Your task to perform on an android device: Clear all items from cart on walmart.com. Search for usb-b on walmart.com, select the first entry, and add it to the cart. Image 0: 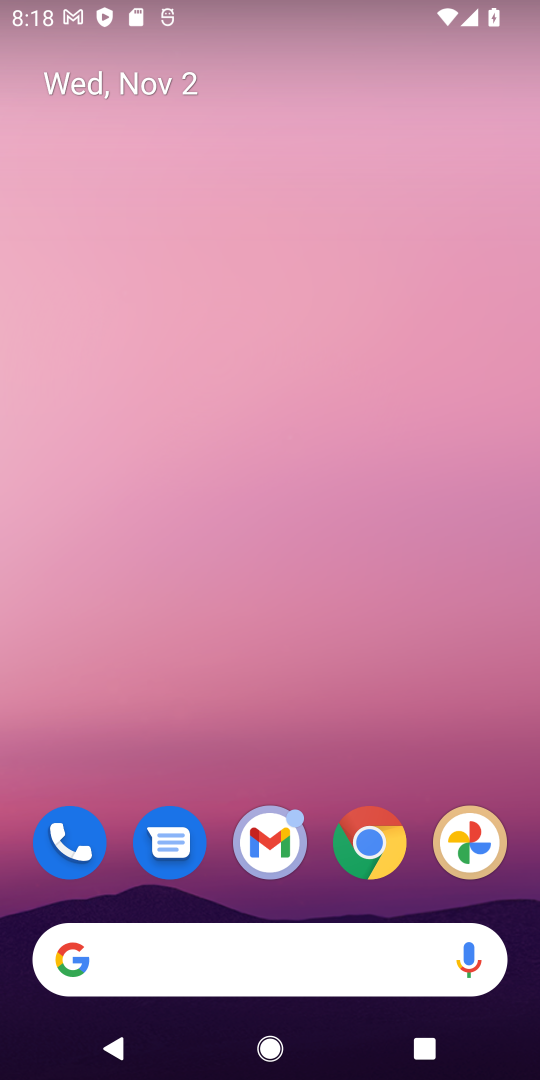
Step 0: drag from (333, 905) to (106, 0)
Your task to perform on an android device: Clear all items from cart on walmart.com. Search for usb-b on walmart.com, select the first entry, and add it to the cart. Image 1: 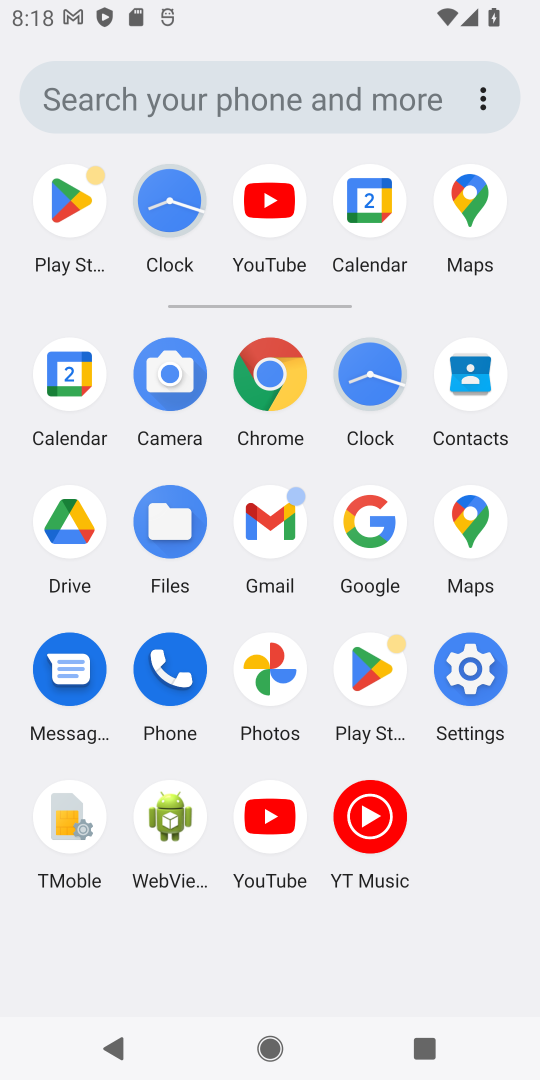
Step 1: click (375, 511)
Your task to perform on an android device: Clear all items from cart on walmart.com. Search for usb-b on walmart.com, select the first entry, and add it to the cart. Image 2: 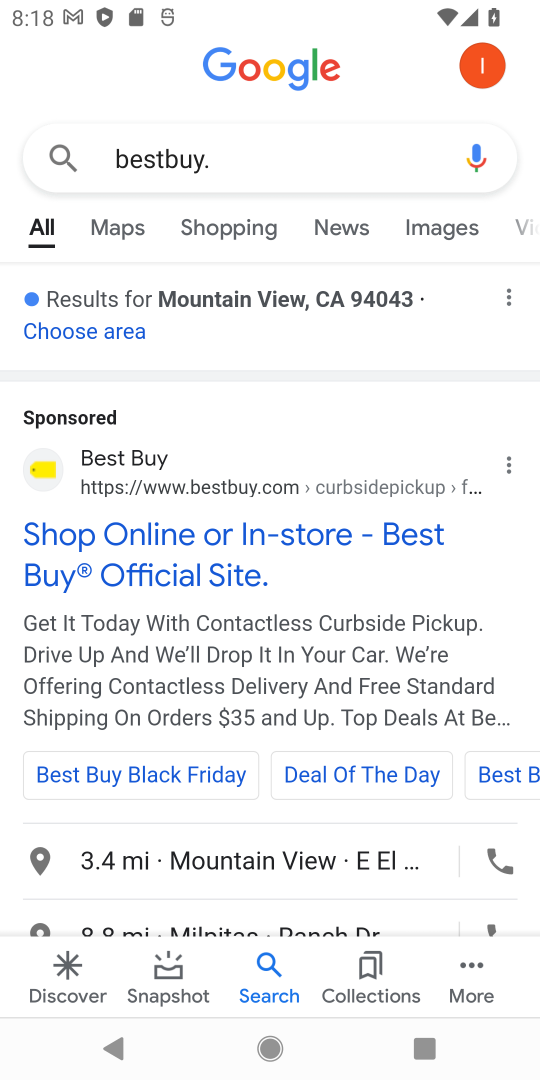
Step 2: click (207, 163)
Your task to perform on an android device: Clear all items from cart on walmart.com. Search for usb-b on walmart.com, select the first entry, and add it to the cart. Image 3: 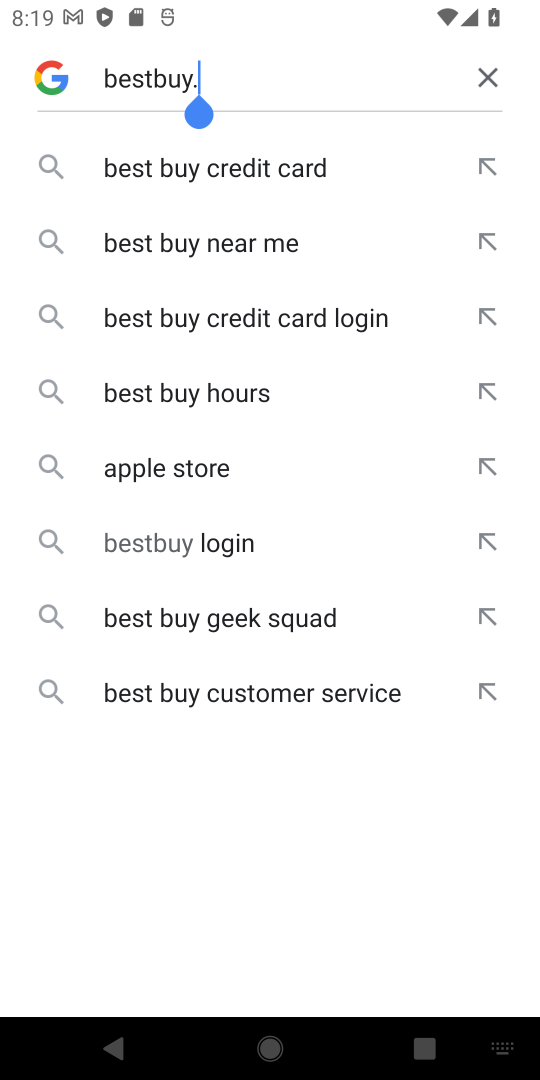
Step 3: click (478, 78)
Your task to perform on an android device: Clear all items from cart on walmart.com. Search for usb-b on walmart.com, select the first entry, and add it to the cart. Image 4: 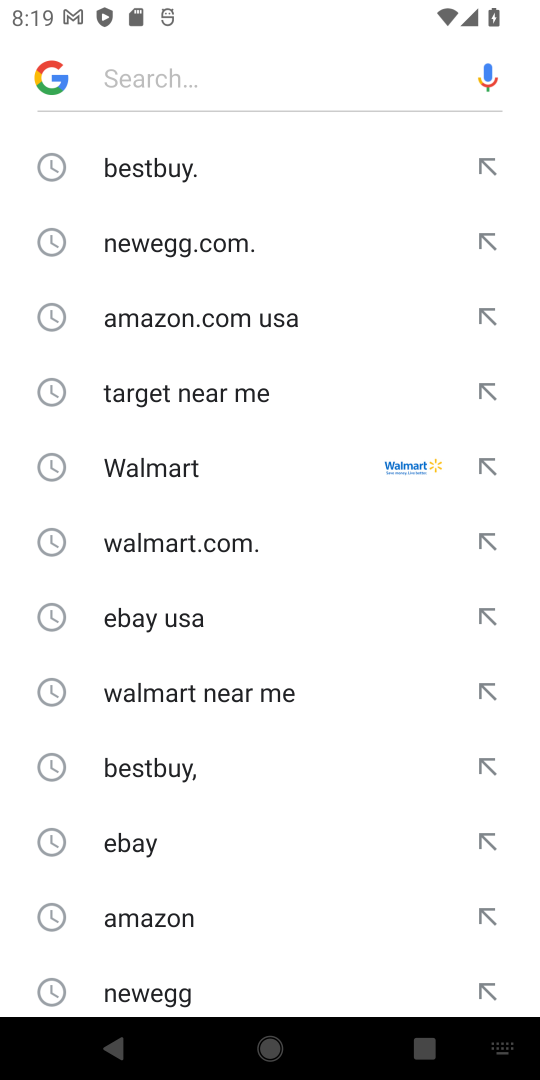
Step 4: click (275, 80)
Your task to perform on an android device: Clear all items from cart on walmart.com. Search for usb-b on walmart.com, select the first entry, and add it to the cart. Image 5: 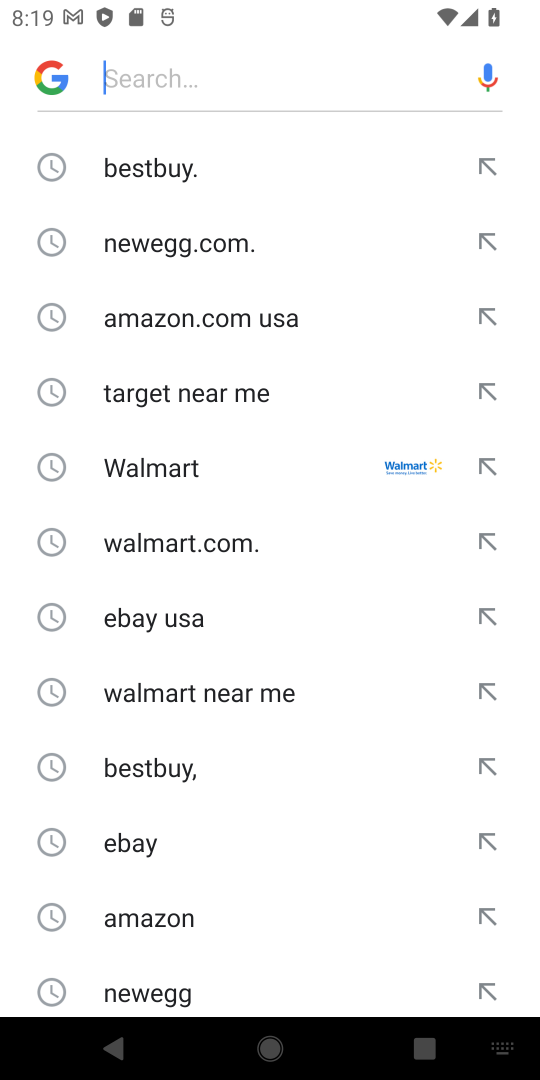
Step 5: type "walmart "
Your task to perform on an android device: Clear all items from cart on walmart.com. Search for usb-b on walmart.com, select the first entry, and add it to the cart. Image 6: 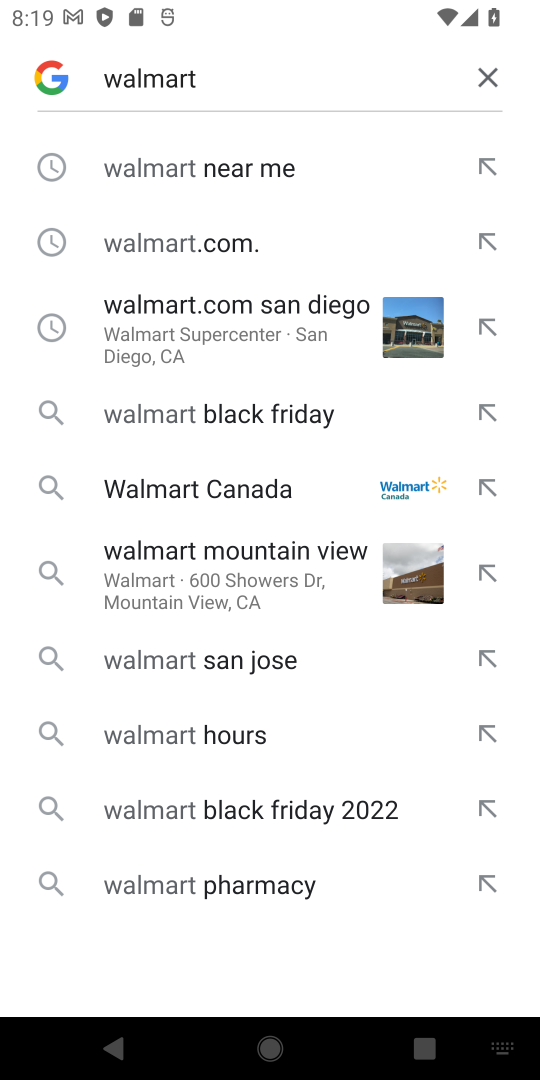
Step 6: click (198, 169)
Your task to perform on an android device: Clear all items from cart on walmart.com. Search for usb-b on walmart.com, select the first entry, and add it to the cart. Image 7: 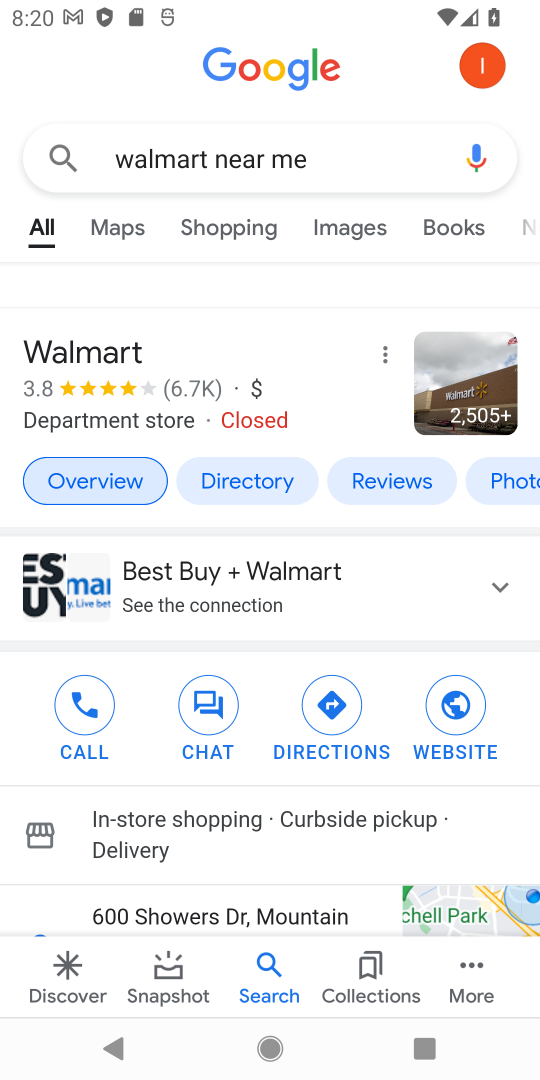
Step 7: drag from (225, 881) to (280, 157)
Your task to perform on an android device: Clear all items from cart on walmart.com. Search for usb-b on walmart.com, select the first entry, and add it to the cart. Image 8: 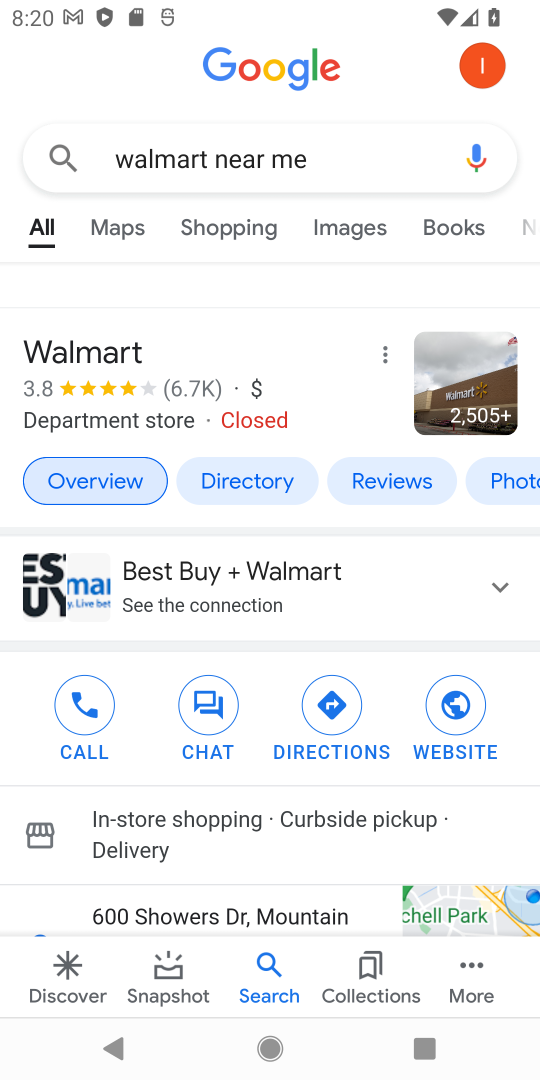
Step 8: drag from (293, 586) to (310, 285)
Your task to perform on an android device: Clear all items from cart on walmart.com. Search for usb-b on walmart.com, select the first entry, and add it to the cart. Image 9: 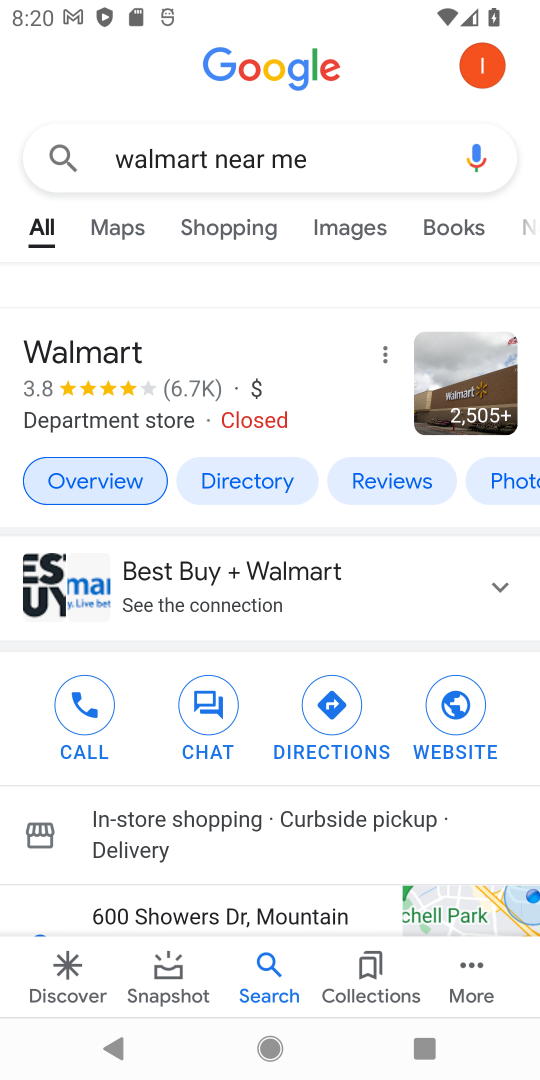
Step 9: drag from (312, 744) to (360, 245)
Your task to perform on an android device: Clear all items from cart on walmart.com. Search for usb-b on walmart.com, select the first entry, and add it to the cart. Image 10: 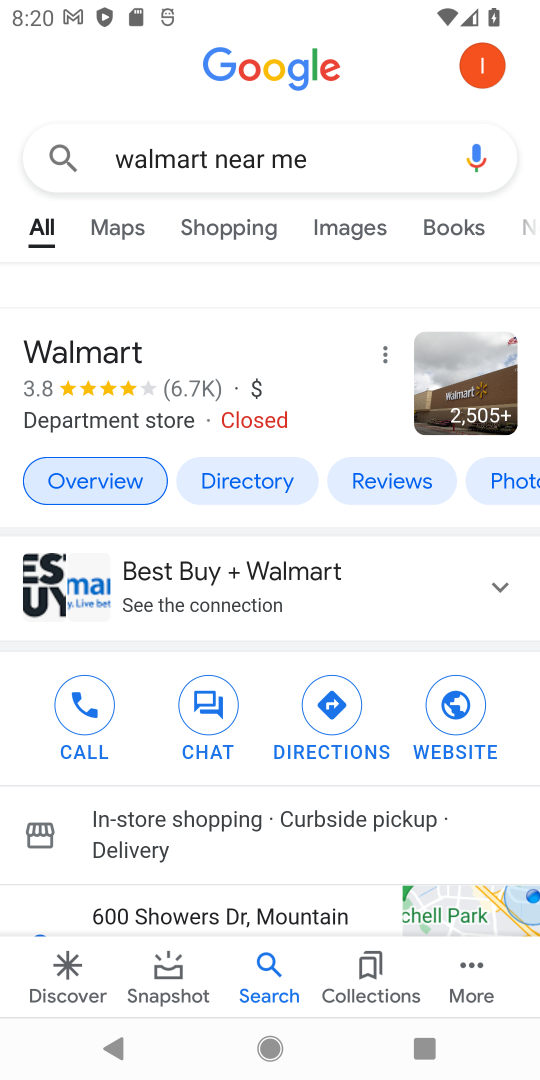
Step 10: drag from (282, 825) to (320, 273)
Your task to perform on an android device: Clear all items from cart on walmart.com. Search for usb-b on walmart.com, select the first entry, and add it to the cart. Image 11: 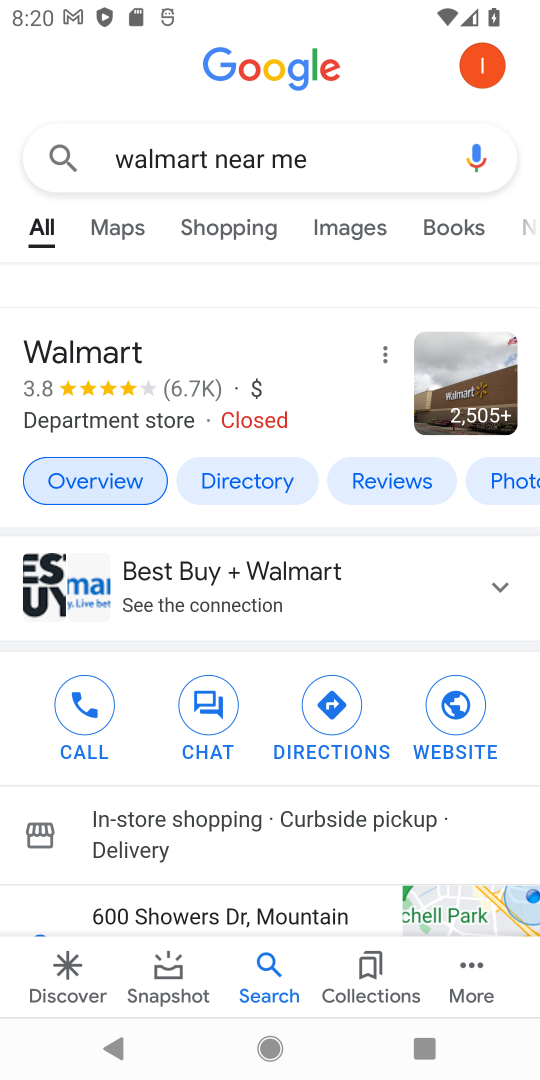
Step 11: drag from (356, 804) to (388, 537)
Your task to perform on an android device: Clear all items from cart on walmart.com. Search for usb-b on walmart.com, select the first entry, and add it to the cart. Image 12: 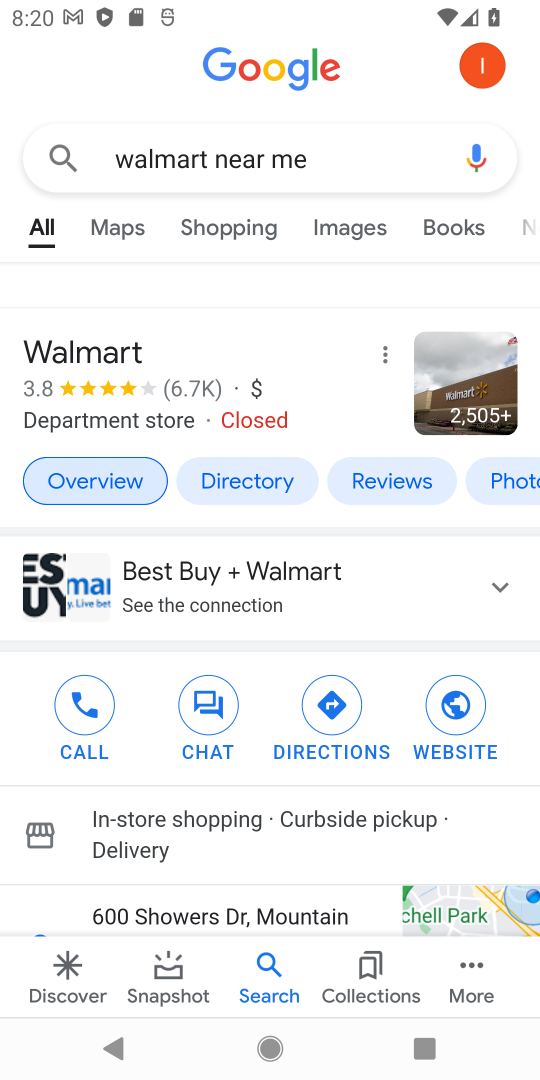
Step 12: drag from (453, 839) to (437, 202)
Your task to perform on an android device: Clear all items from cart on walmart.com. Search for usb-b on walmart.com, select the first entry, and add it to the cart. Image 13: 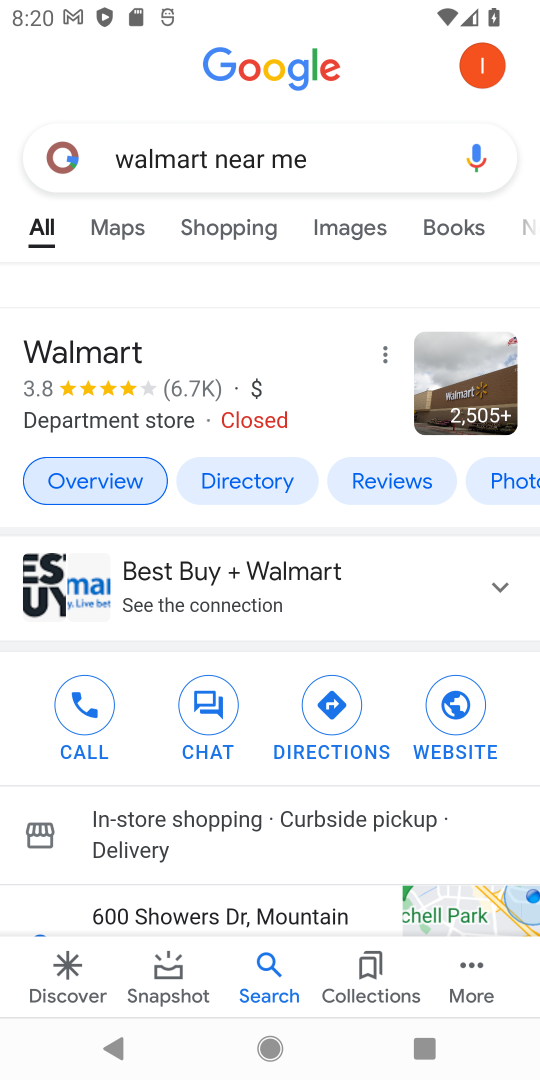
Step 13: drag from (374, 709) to (529, 190)
Your task to perform on an android device: Clear all items from cart on walmart.com. Search for usb-b on walmart.com, select the first entry, and add it to the cart. Image 14: 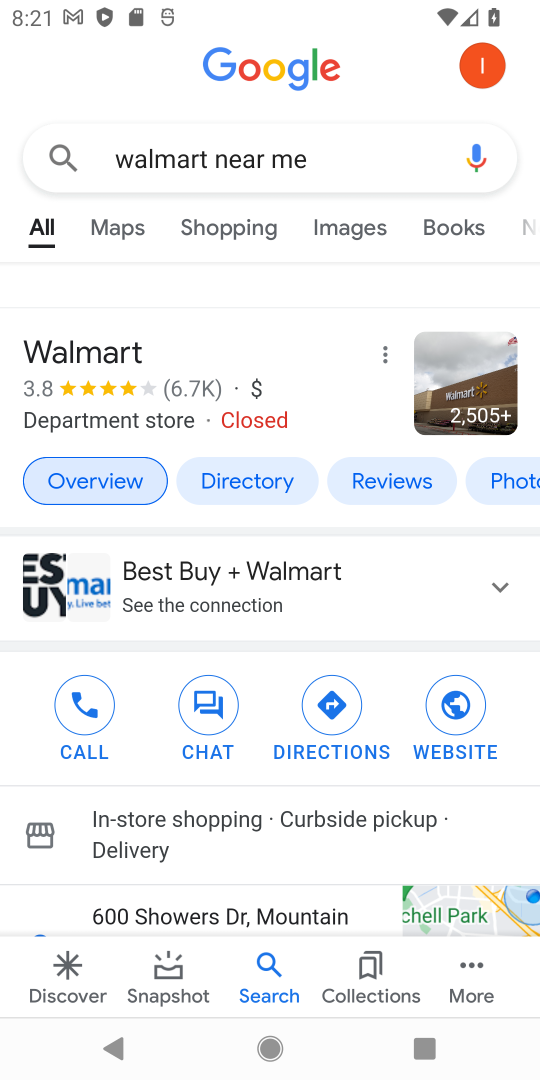
Step 14: drag from (204, 773) to (251, 200)
Your task to perform on an android device: Clear all items from cart on walmart.com. Search for usb-b on walmart.com, select the first entry, and add it to the cart. Image 15: 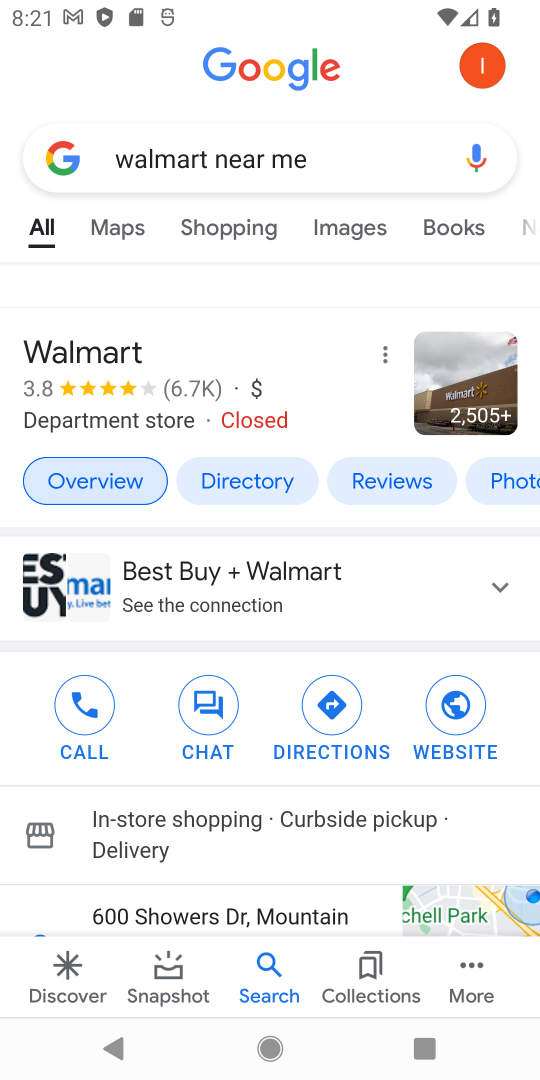
Step 15: drag from (180, 751) to (201, 428)
Your task to perform on an android device: Clear all items from cart on walmart.com. Search for usb-b on walmart.com, select the first entry, and add it to the cart. Image 16: 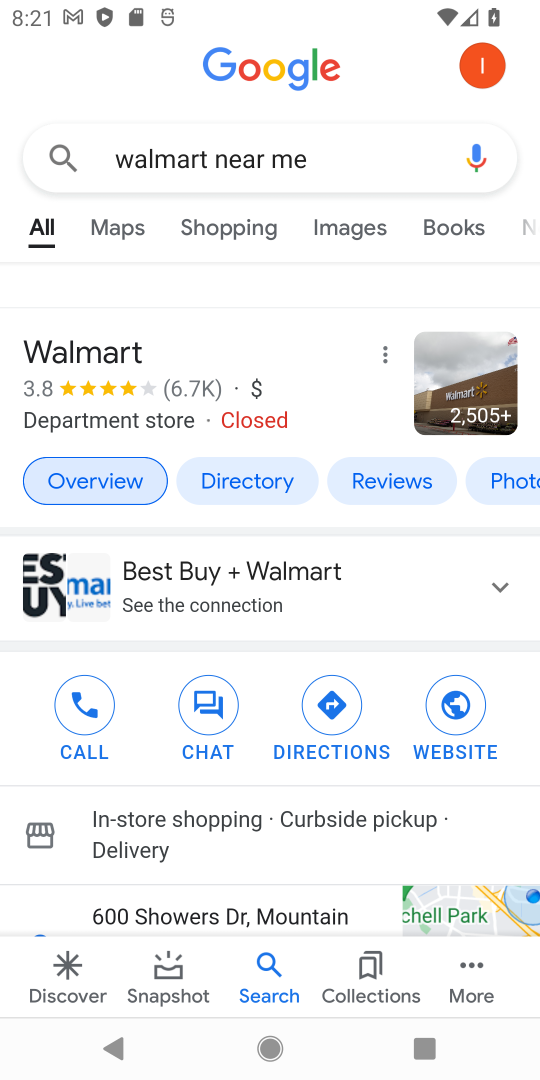
Step 16: drag from (124, 785) to (183, 450)
Your task to perform on an android device: Clear all items from cart on walmart.com. Search for usb-b on walmart.com, select the first entry, and add it to the cart. Image 17: 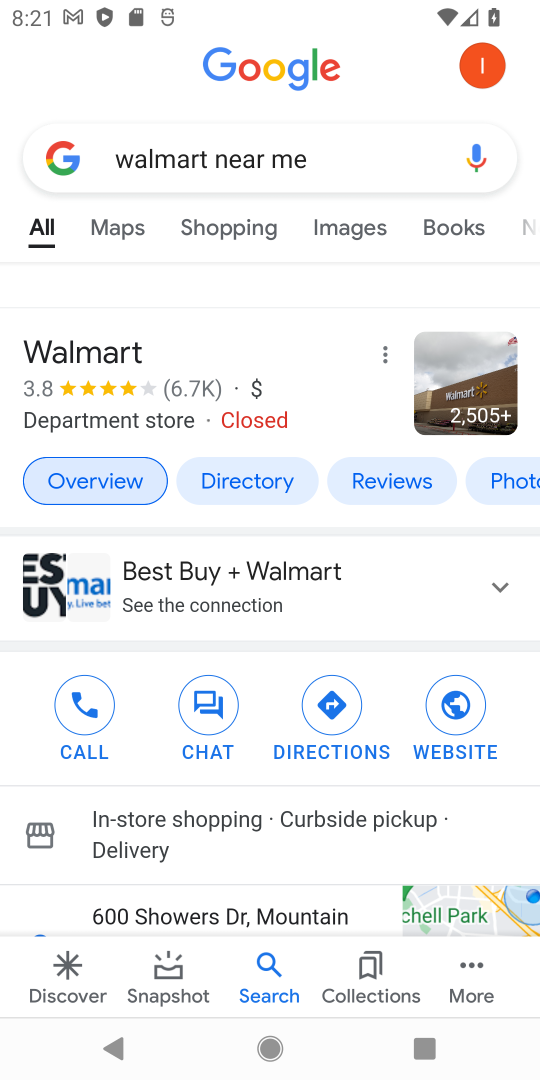
Step 17: drag from (241, 309) to (325, 314)
Your task to perform on an android device: Clear all items from cart on walmart.com. Search for usb-b on walmart.com, select the first entry, and add it to the cart. Image 18: 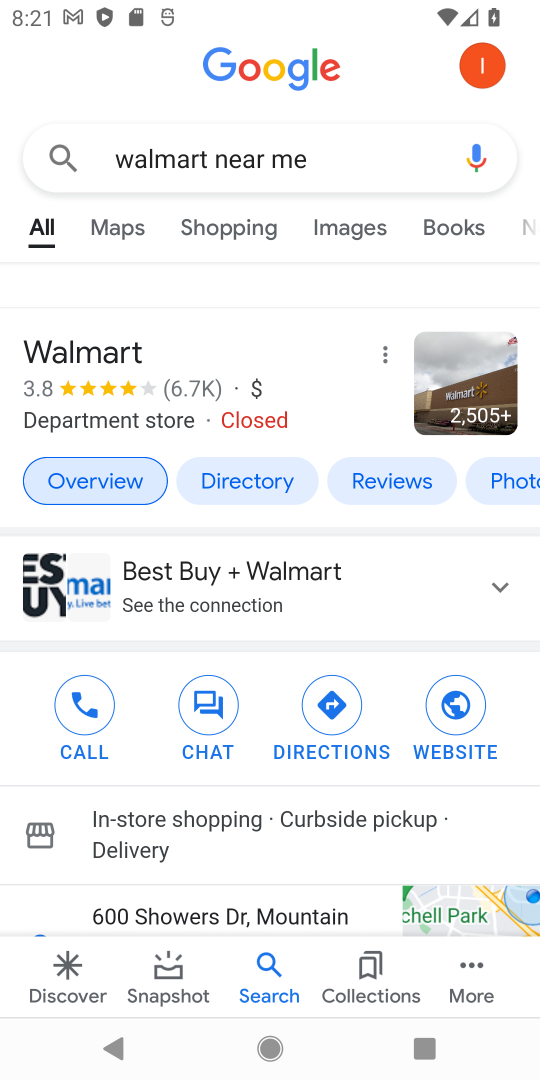
Step 18: click (326, 150)
Your task to perform on an android device: Clear all items from cart on walmart.com. Search for usb-b on walmart.com, select the first entry, and add it to the cart. Image 19: 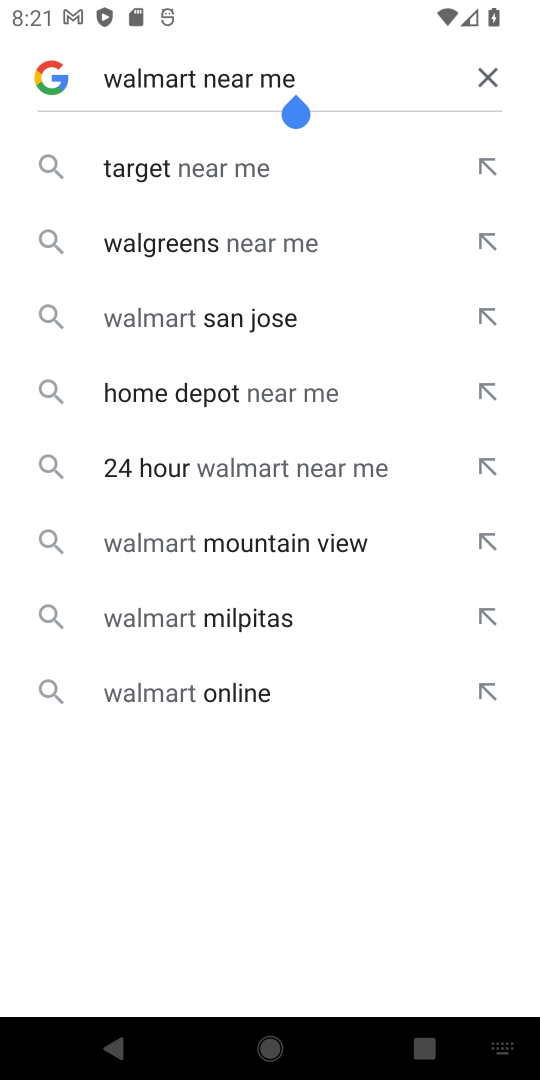
Step 19: click (484, 69)
Your task to perform on an android device: Clear all items from cart on walmart.com. Search for usb-b on walmart.com, select the first entry, and add it to the cart. Image 20: 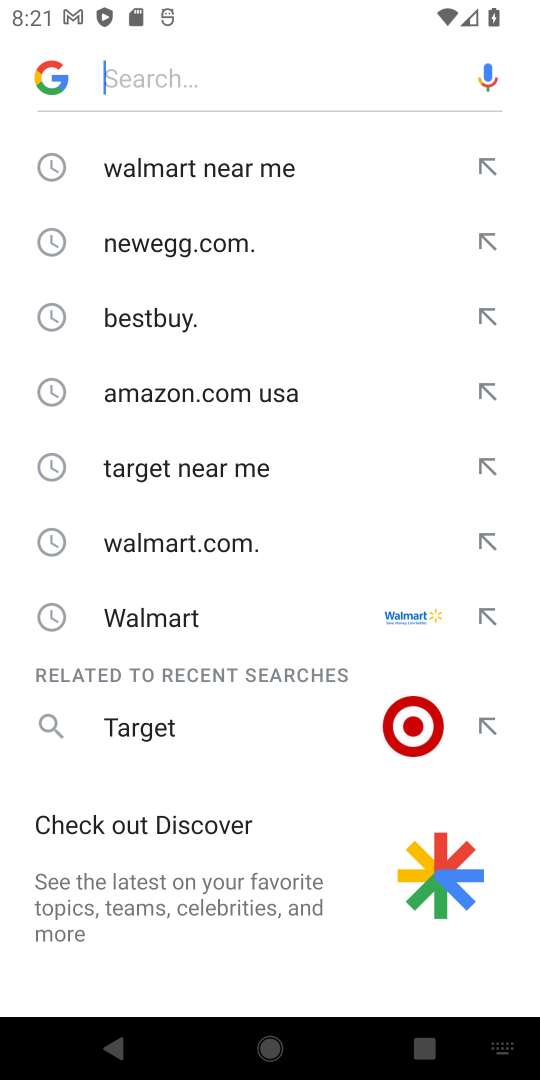
Step 20: click (157, 617)
Your task to perform on an android device: Clear all items from cart on walmart.com. Search for usb-b on walmart.com, select the first entry, and add it to the cart. Image 21: 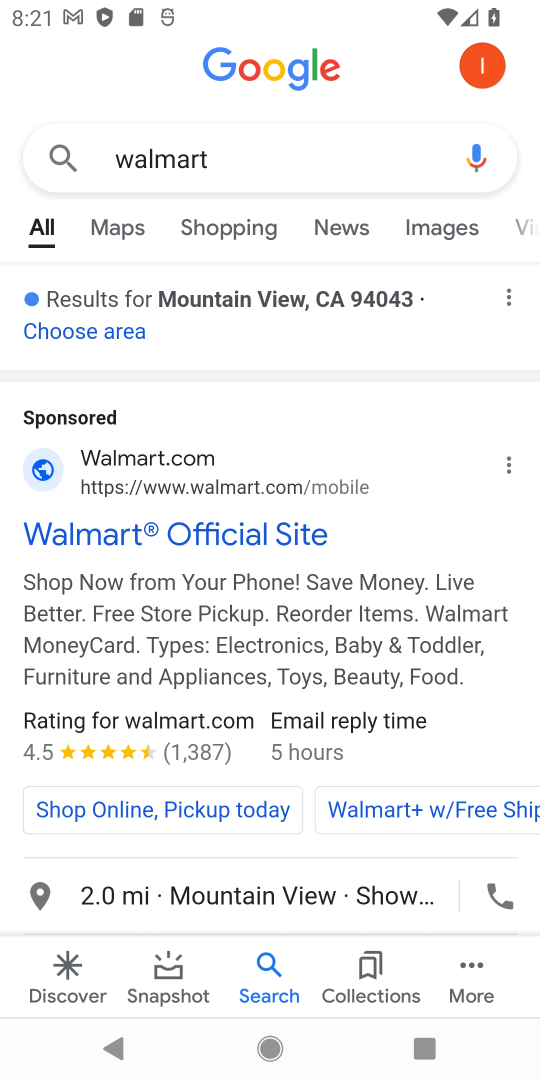
Step 21: drag from (223, 801) to (273, 331)
Your task to perform on an android device: Clear all items from cart on walmart.com. Search for usb-b on walmart.com, select the first entry, and add it to the cart. Image 22: 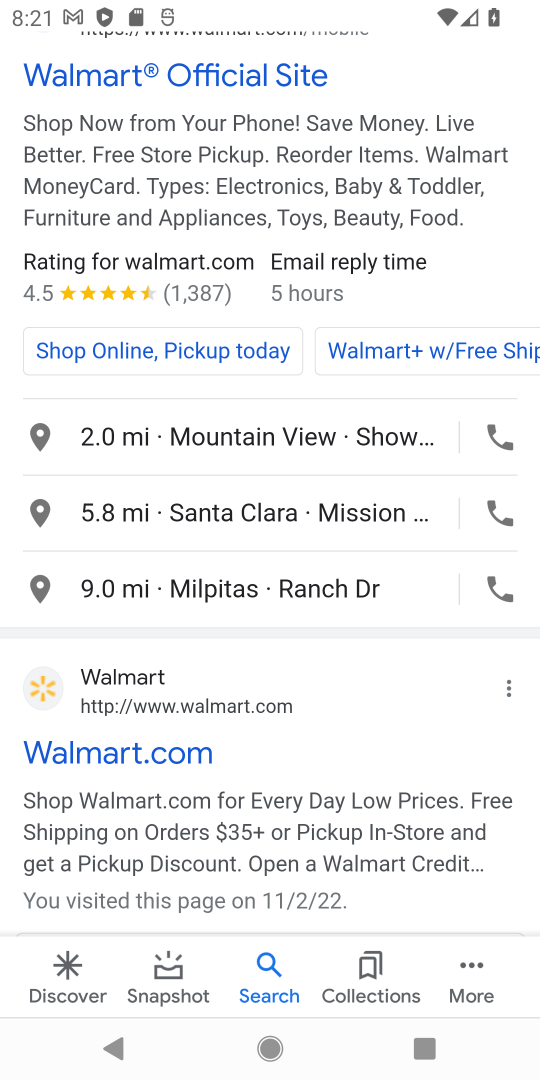
Step 22: drag from (396, 793) to (396, 467)
Your task to perform on an android device: Clear all items from cart on walmart.com. Search for usb-b on walmart.com, select the first entry, and add it to the cart. Image 23: 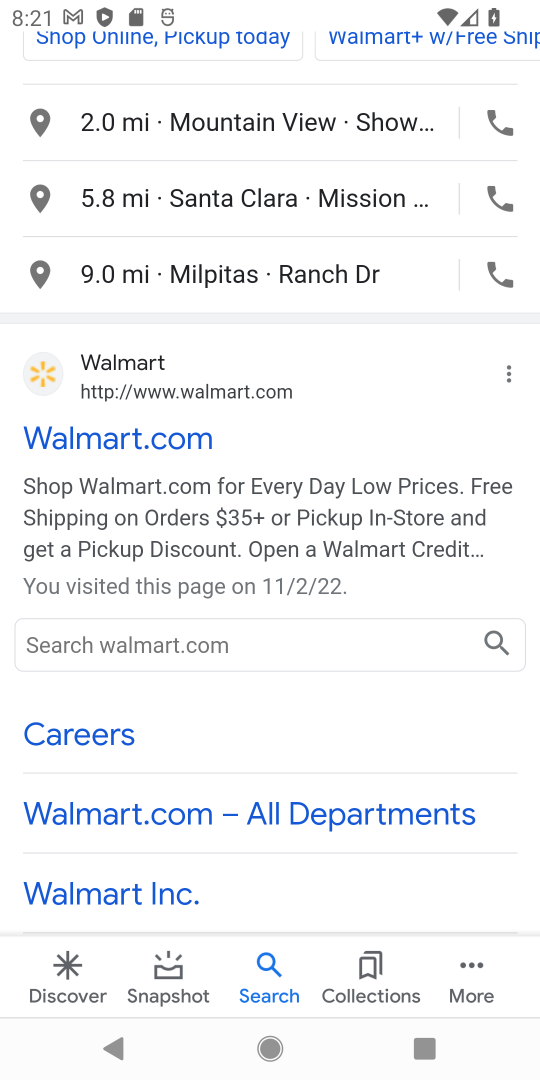
Step 23: click (42, 380)
Your task to perform on an android device: Clear all items from cart on walmart.com. Search for usb-b on walmart.com, select the first entry, and add it to the cart. Image 24: 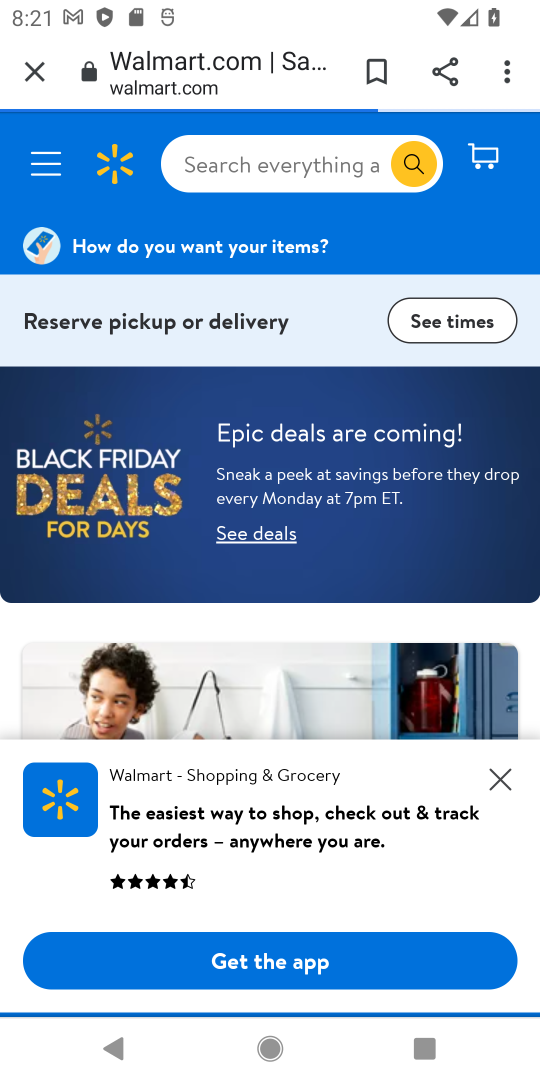
Step 24: click (271, 157)
Your task to perform on an android device: Clear all items from cart on walmart.com. Search for usb-b on walmart.com, select the first entry, and add it to the cart. Image 25: 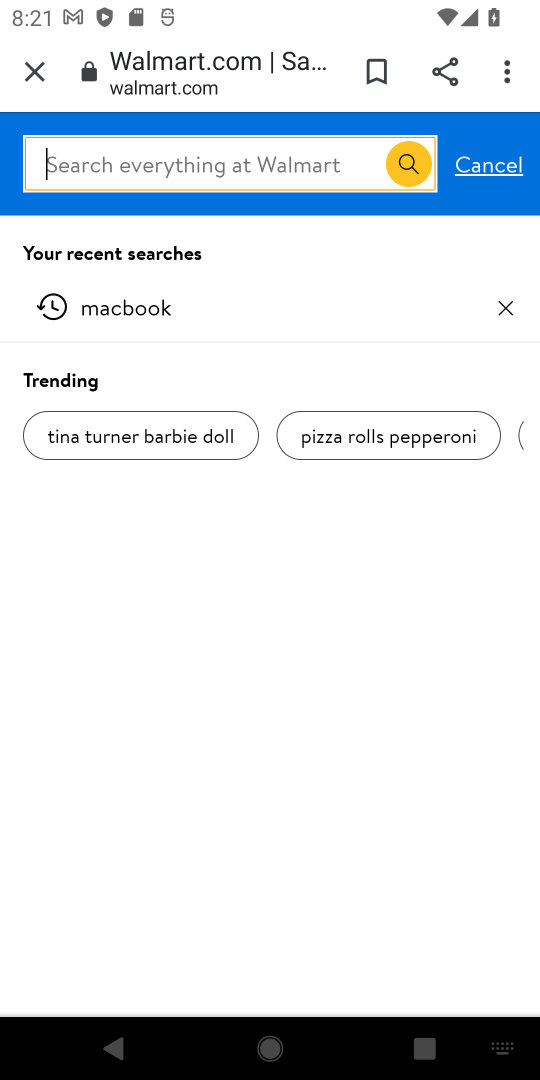
Step 25: click (183, 150)
Your task to perform on an android device: Clear all items from cart on walmart.com. Search for usb-b on walmart.com, select the first entry, and add it to the cart. Image 26: 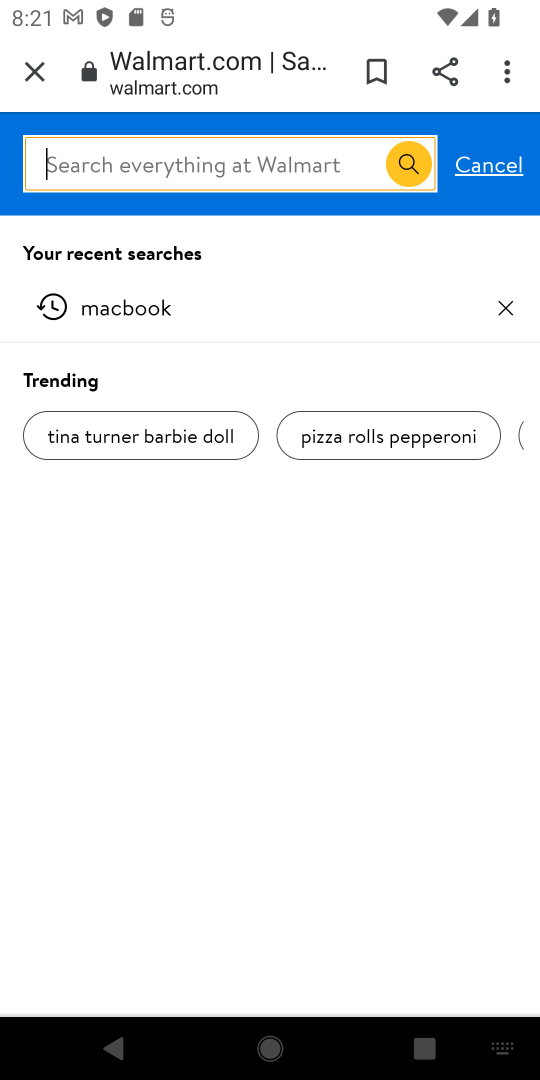
Step 26: type " usb-b "
Your task to perform on an android device: Clear all items from cart on walmart.com. Search for usb-b on walmart.com, select the first entry, and add it to the cart. Image 27: 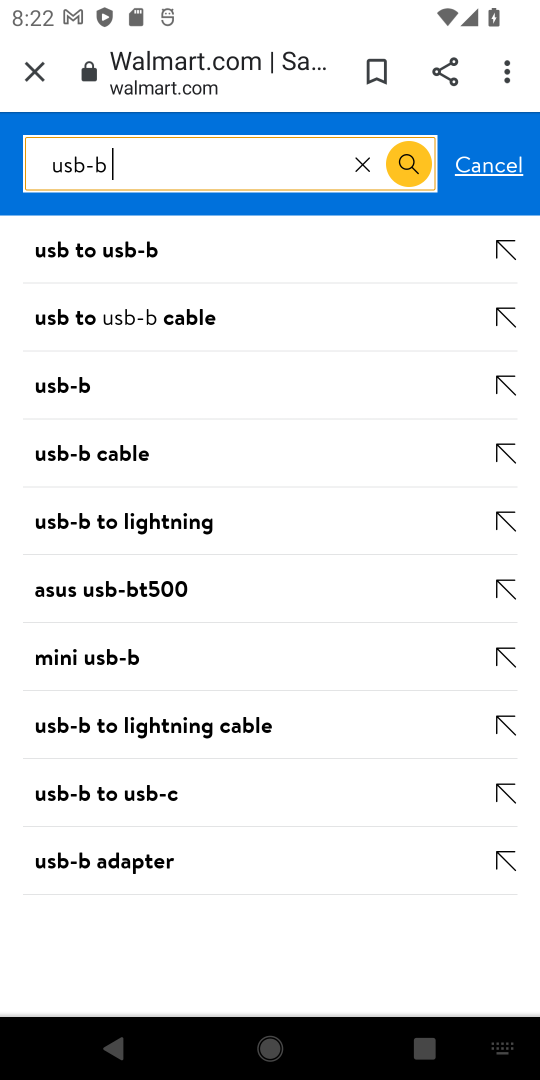
Step 27: click (55, 377)
Your task to perform on an android device: Clear all items from cart on walmart.com. Search for usb-b on walmart.com, select the first entry, and add it to the cart. Image 28: 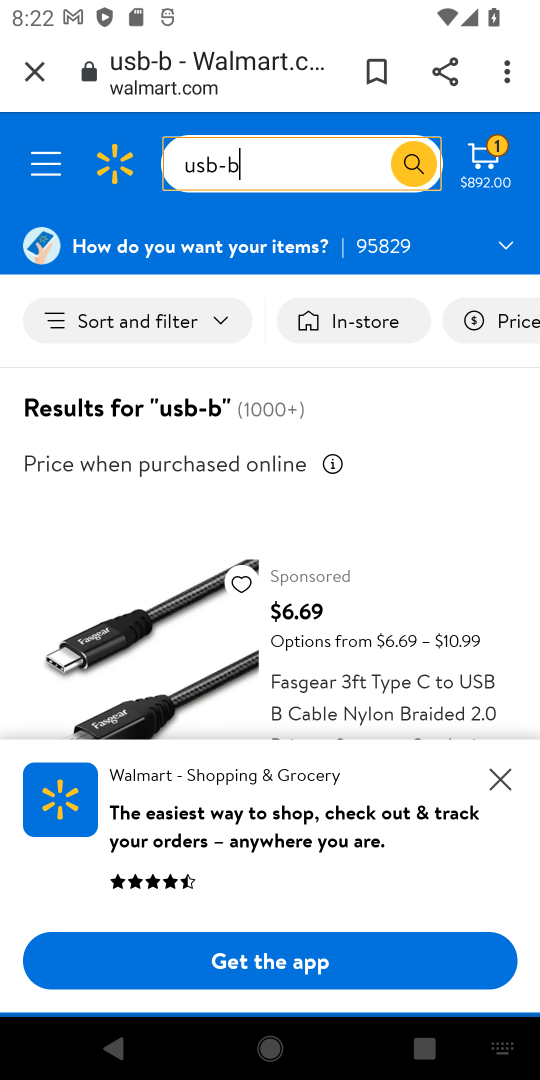
Step 28: click (491, 764)
Your task to perform on an android device: Clear all items from cart on walmart.com. Search for usb-b on walmart.com, select the first entry, and add it to the cart. Image 29: 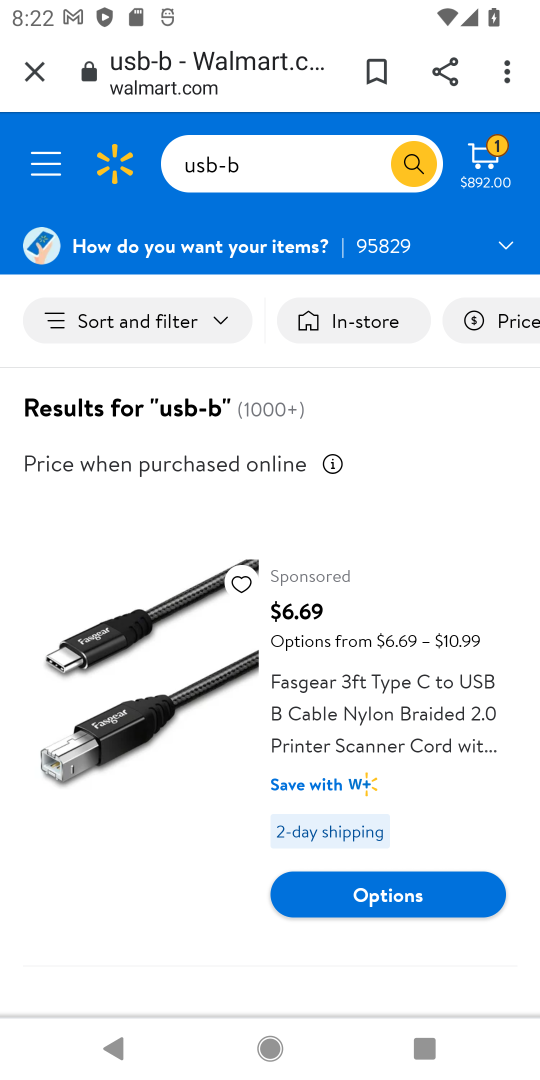
Step 29: click (371, 630)
Your task to perform on an android device: Clear all items from cart on walmart.com. Search for usb-b on walmart.com, select the first entry, and add it to the cart. Image 30: 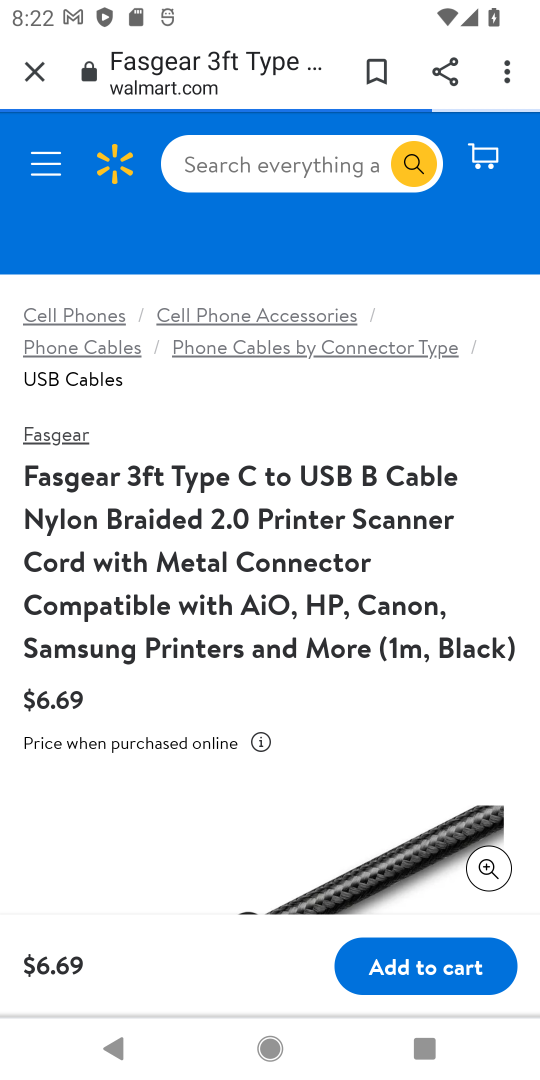
Step 30: click (417, 956)
Your task to perform on an android device: Clear all items from cart on walmart.com. Search for usb-b on walmart.com, select the first entry, and add it to the cart. Image 31: 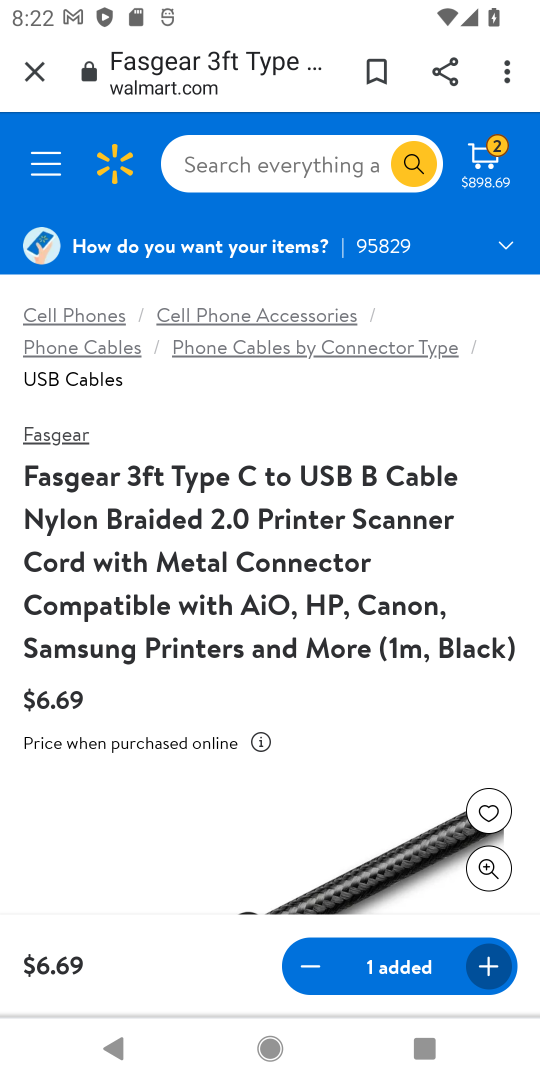
Step 31: task complete